Your task to perform on an android device: Go to Reddit.com Image 0: 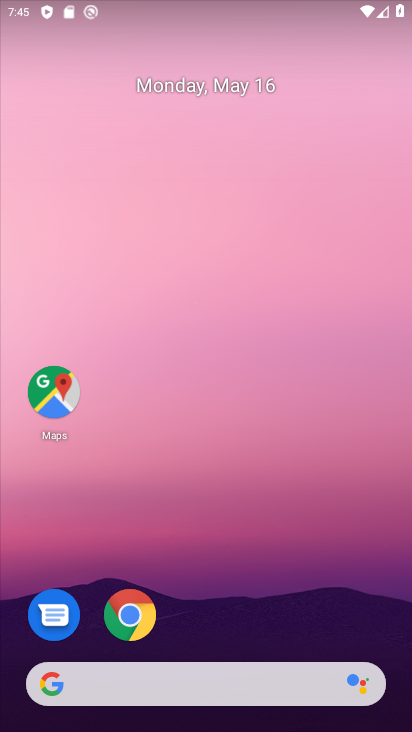
Step 0: drag from (269, 655) to (379, 178)
Your task to perform on an android device: Go to Reddit.com Image 1: 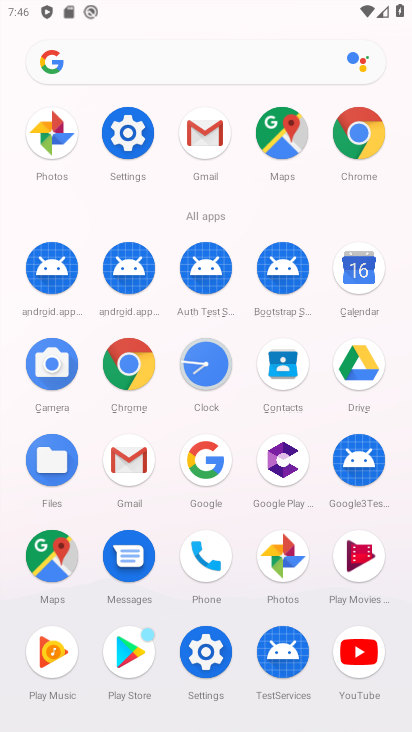
Step 1: click (357, 152)
Your task to perform on an android device: Go to Reddit.com Image 2: 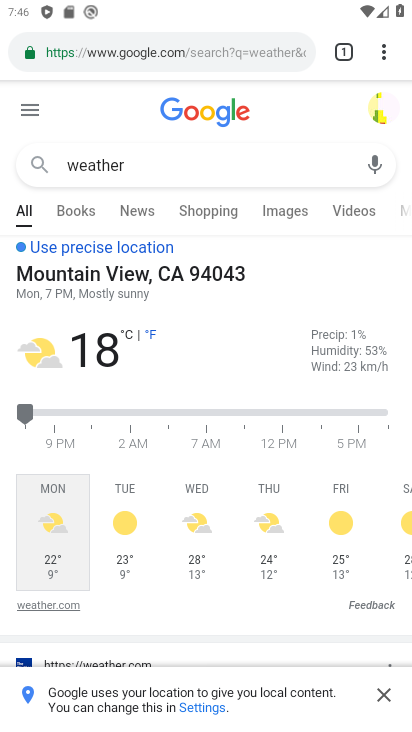
Step 2: click (280, 53)
Your task to perform on an android device: Go to Reddit.com Image 3: 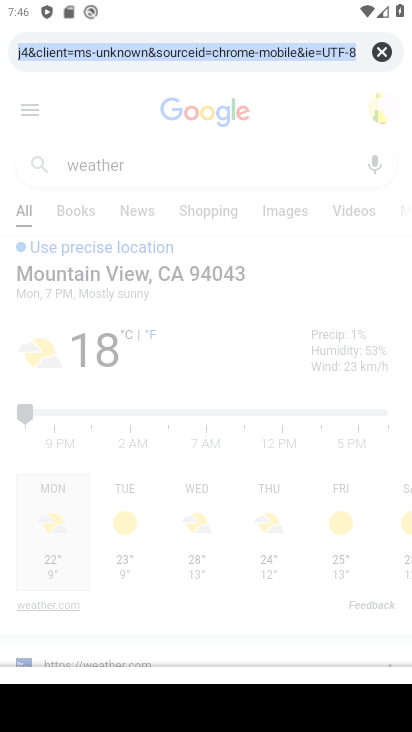
Step 3: type "reddit"
Your task to perform on an android device: Go to Reddit.com Image 4: 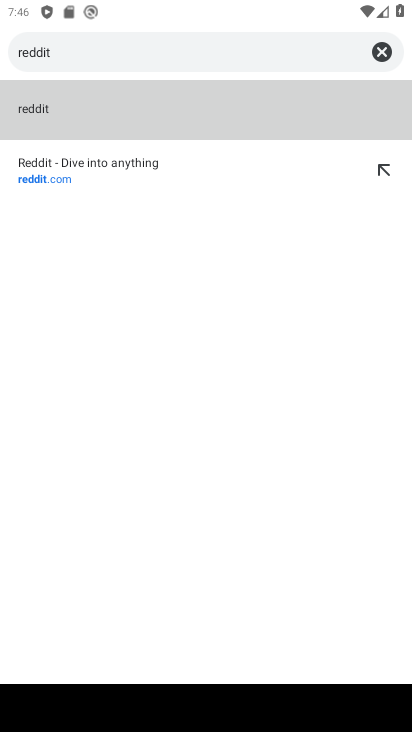
Step 4: click (191, 175)
Your task to perform on an android device: Go to Reddit.com Image 5: 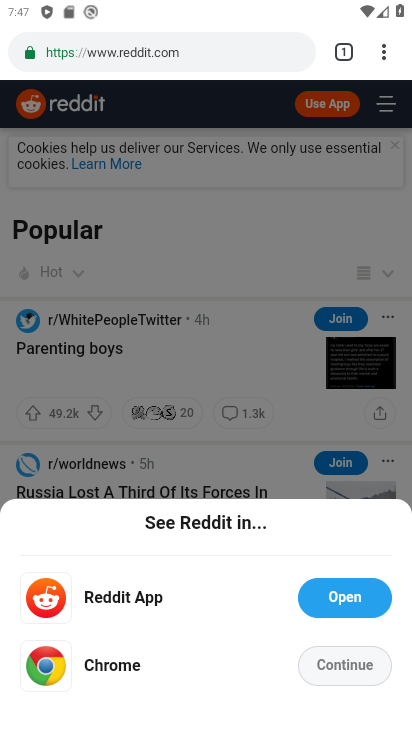
Step 5: click (318, 664)
Your task to perform on an android device: Go to Reddit.com Image 6: 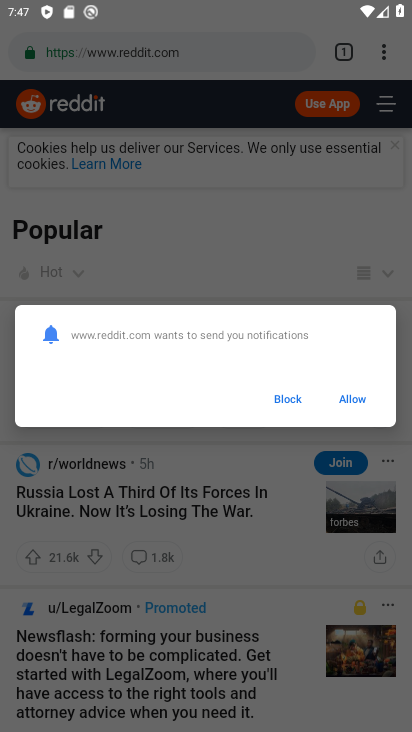
Step 6: task complete